Your task to perform on an android device: Go to wifi settings Image 0: 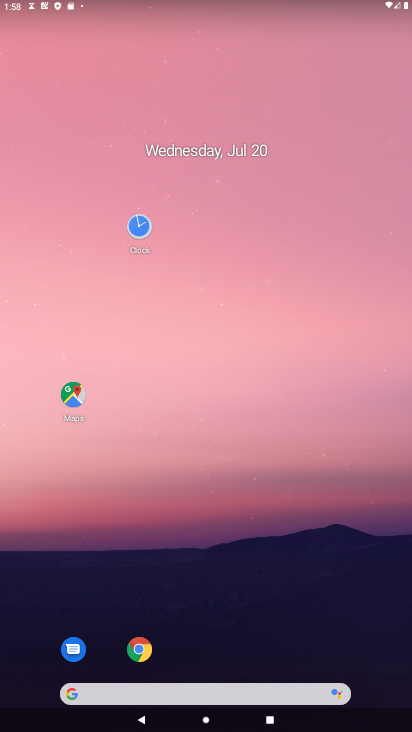
Step 0: drag from (277, 416) to (322, 128)
Your task to perform on an android device: Go to wifi settings Image 1: 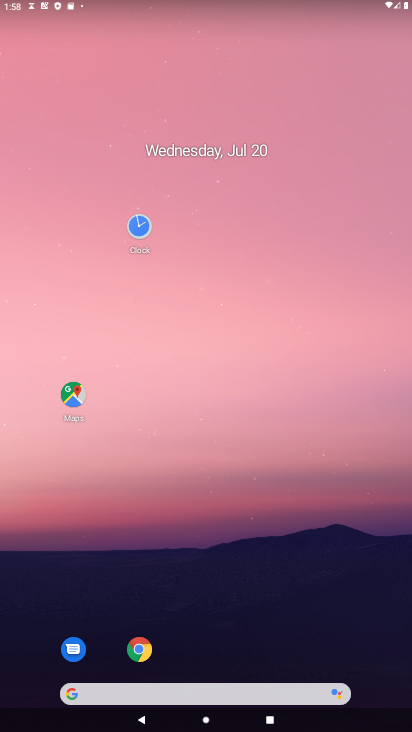
Step 1: drag from (238, 585) to (287, 176)
Your task to perform on an android device: Go to wifi settings Image 2: 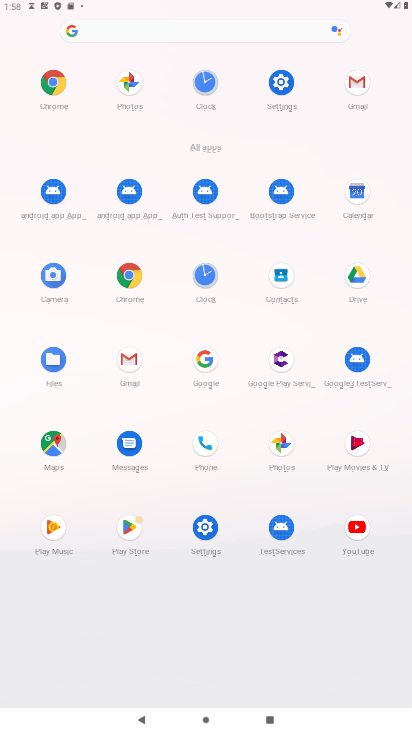
Step 2: click (284, 87)
Your task to perform on an android device: Go to wifi settings Image 3: 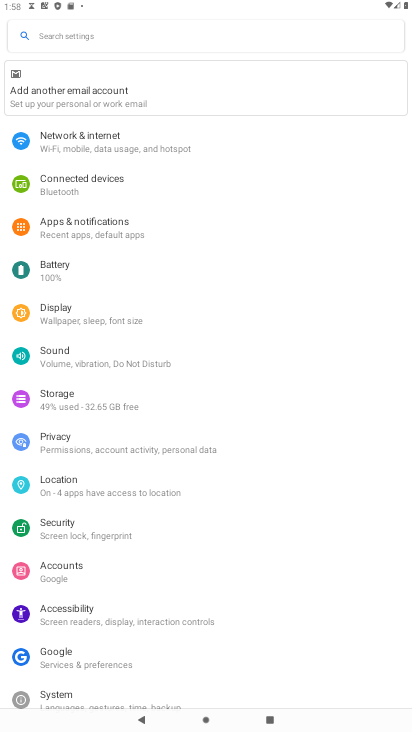
Step 3: click (111, 157)
Your task to perform on an android device: Go to wifi settings Image 4: 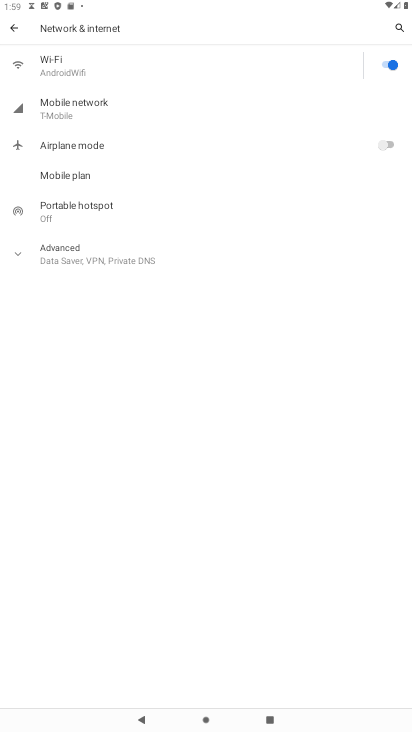
Step 4: click (235, 75)
Your task to perform on an android device: Go to wifi settings Image 5: 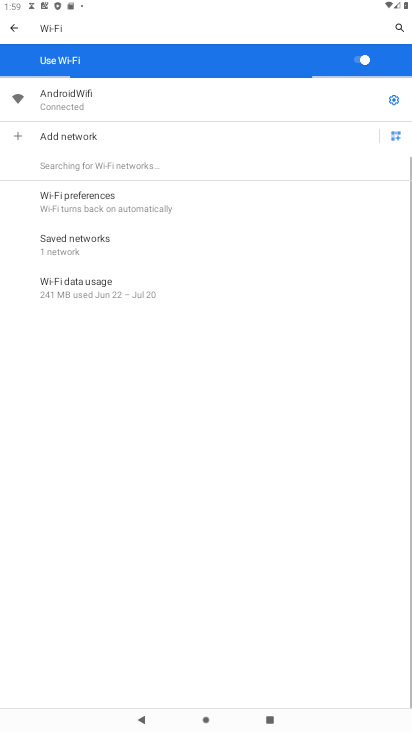
Step 5: click (394, 92)
Your task to perform on an android device: Go to wifi settings Image 6: 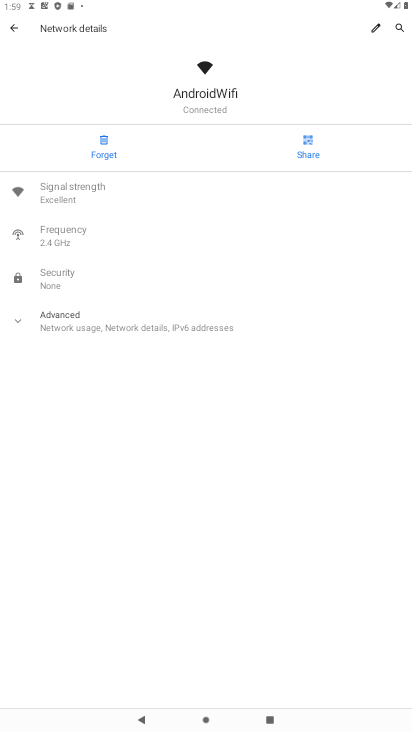
Step 6: task complete